Your task to perform on an android device: toggle javascript in the chrome app Image 0: 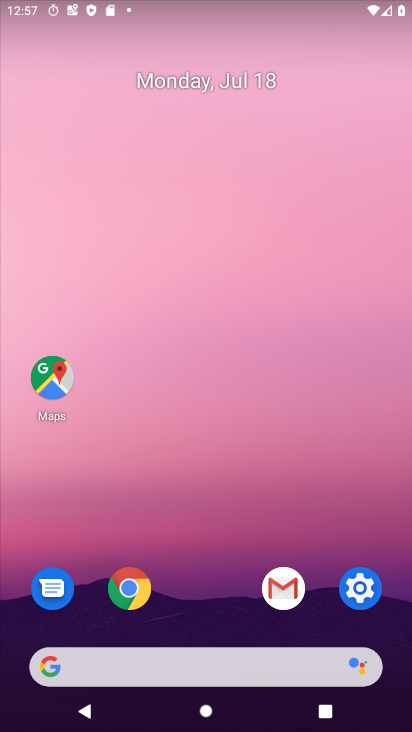
Step 0: click (143, 592)
Your task to perform on an android device: toggle javascript in the chrome app Image 1: 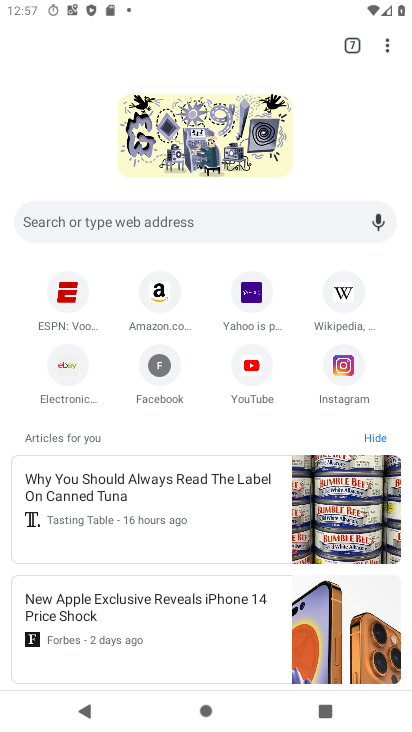
Step 1: click (393, 42)
Your task to perform on an android device: toggle javascript in the chrome app Image 2: 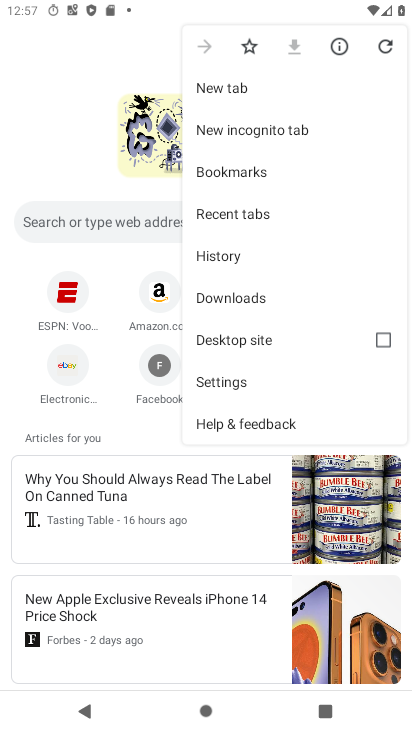
Step 2: click (227, 376)
Your task to perform on an android device: toggle javascript in the chrome app Image 3: 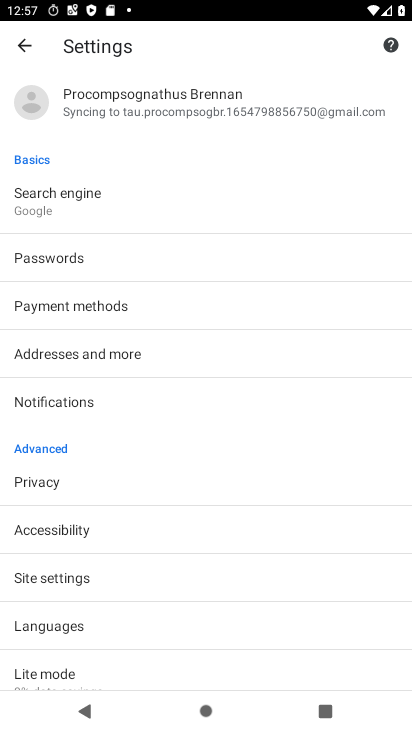
Step 3: click (60, 570)
Your task to perform on an android device: toggle javascript in the chrome app Image 4: 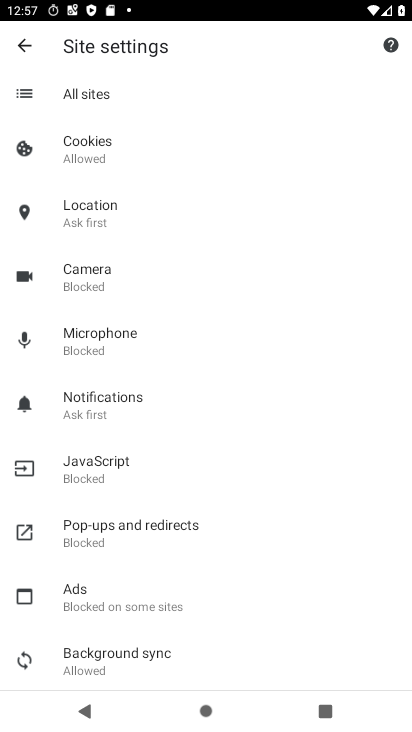
Step 4: click (103, 470)
Your task to perform on an android device: toggle javascript in the chrome app Image 5: 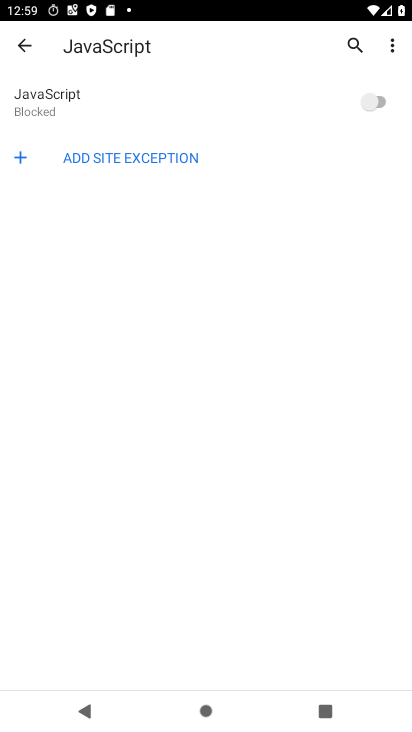
Step 5: task complete